Your task to perform on an android device: check data usage Image 0: 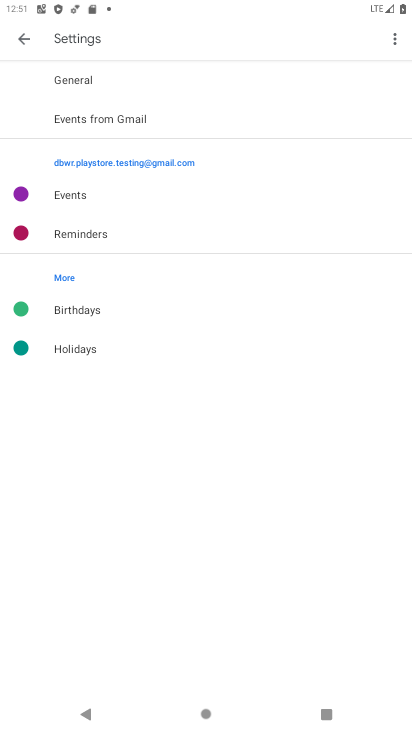
Step 0: press home button
Your task to perform on an android device: check data usage Image 1: 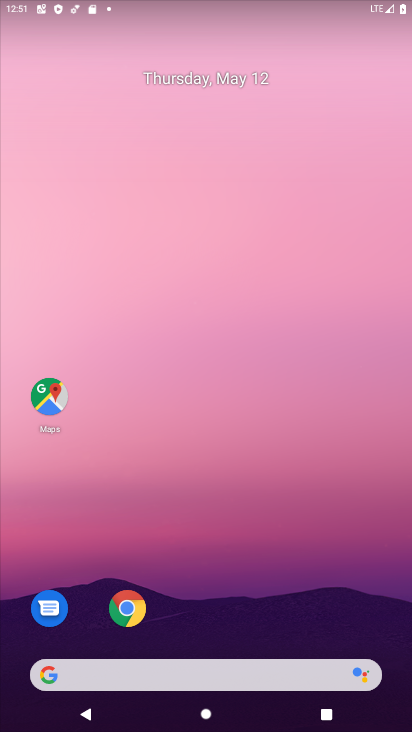
Step 1: drag from (300, 588) to (298, 8)
Your task to perform on an android device: check data usage Image 2: 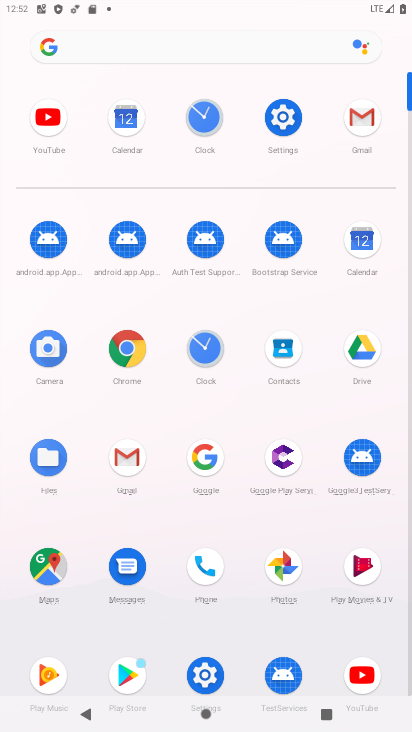
Step 2: click (287, 163)
Your task to perform on an android device: check data usage Image 3: 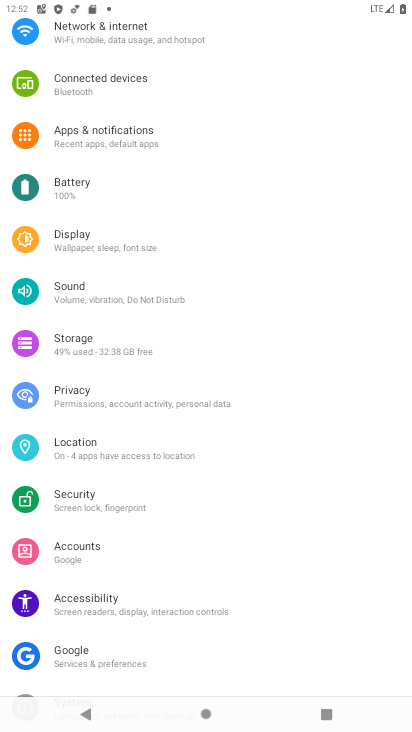
Step 3: click (94, 37)
Your task to perform on an android device: check data usage Image 4: 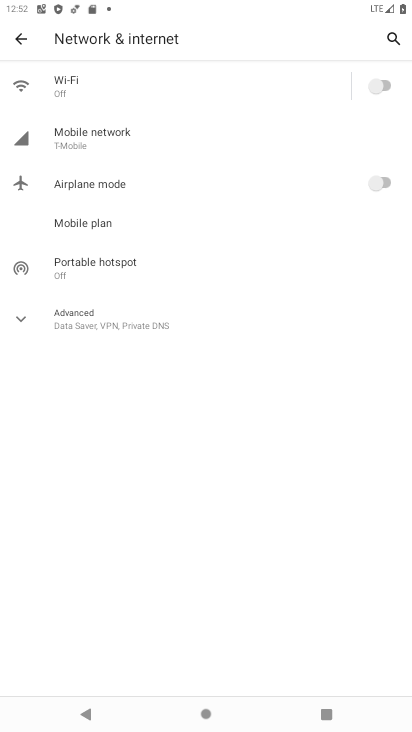
Step 4: click (51, 146)
Your task to perform on an android device: check data usage Image 5: 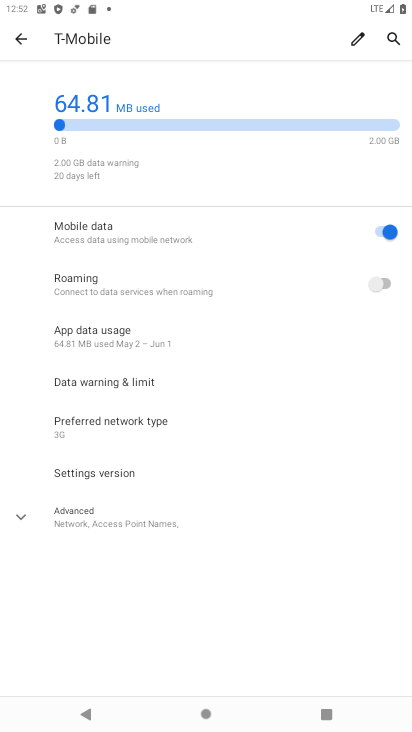
Step 5: click (82, 339)
Your task to perform on an android device: check data usage Image 6: 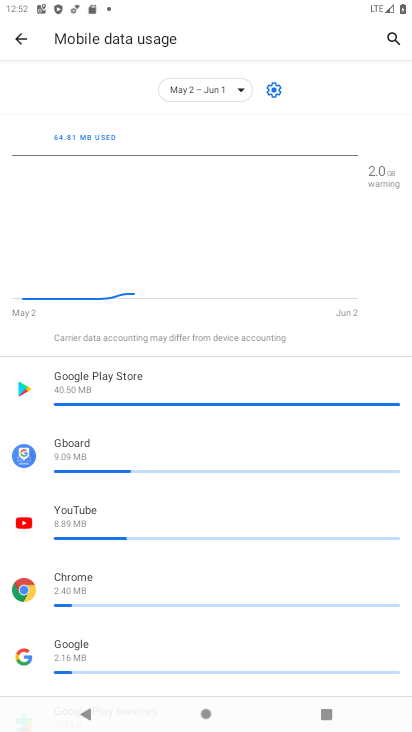
Step 6: task complete